Your task to perform on an android device: uninstall "Adobe Express: Graphic Design" Image 0: 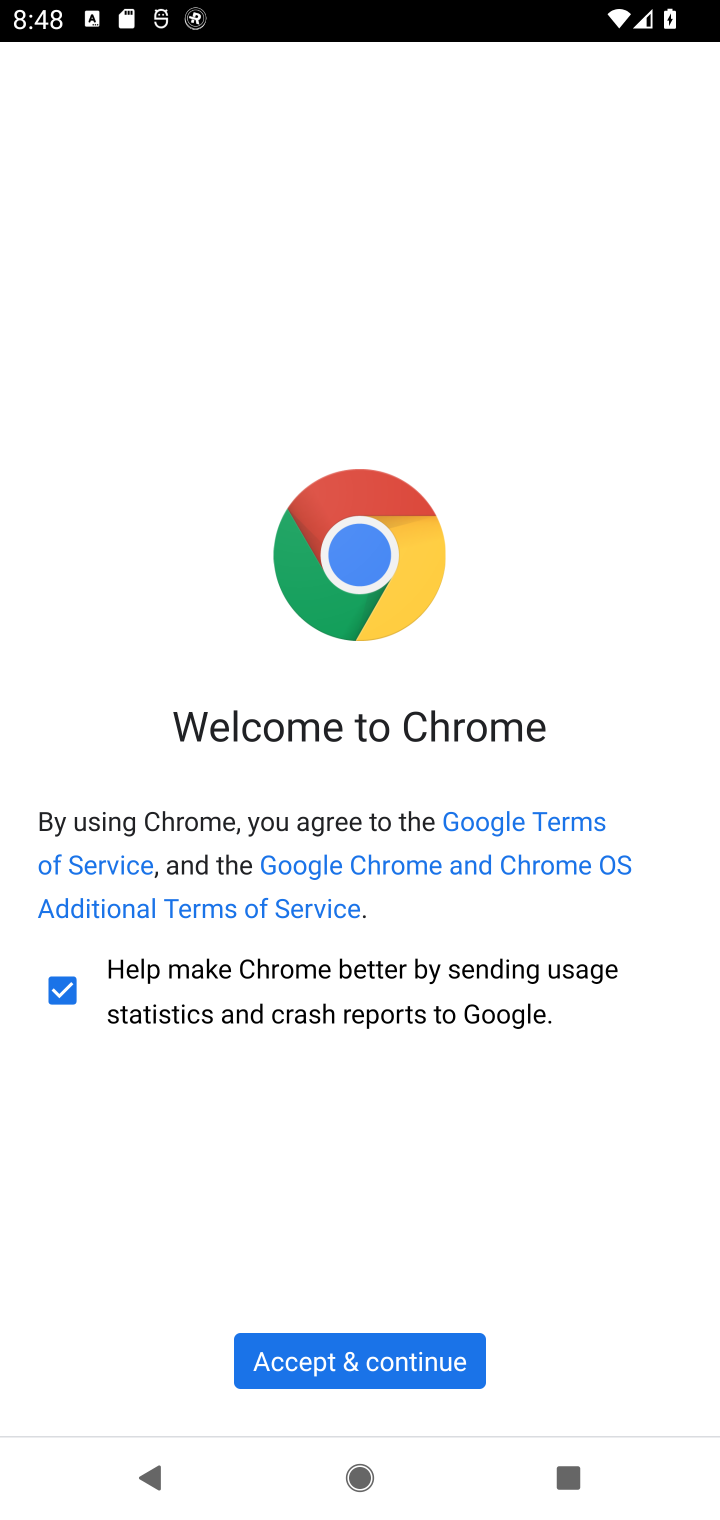
Step 0: press home button
Your task to perform on an android device: uninstall "Adobe Express: Graphic Design" Image 1: 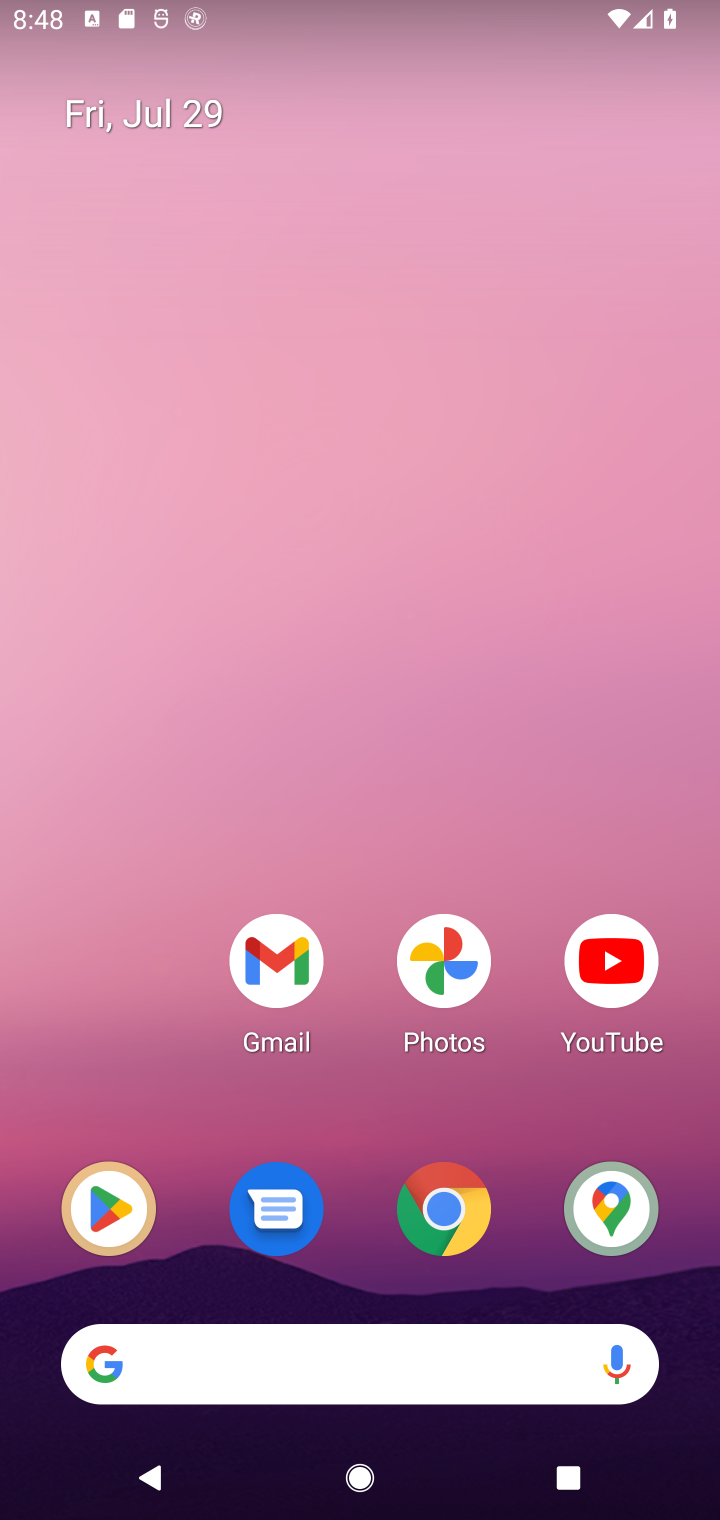
Step 1: click (97, 1213)
Your task to perform on an android device: uninstall "Adobe Express: Graphic Design" Image 2: 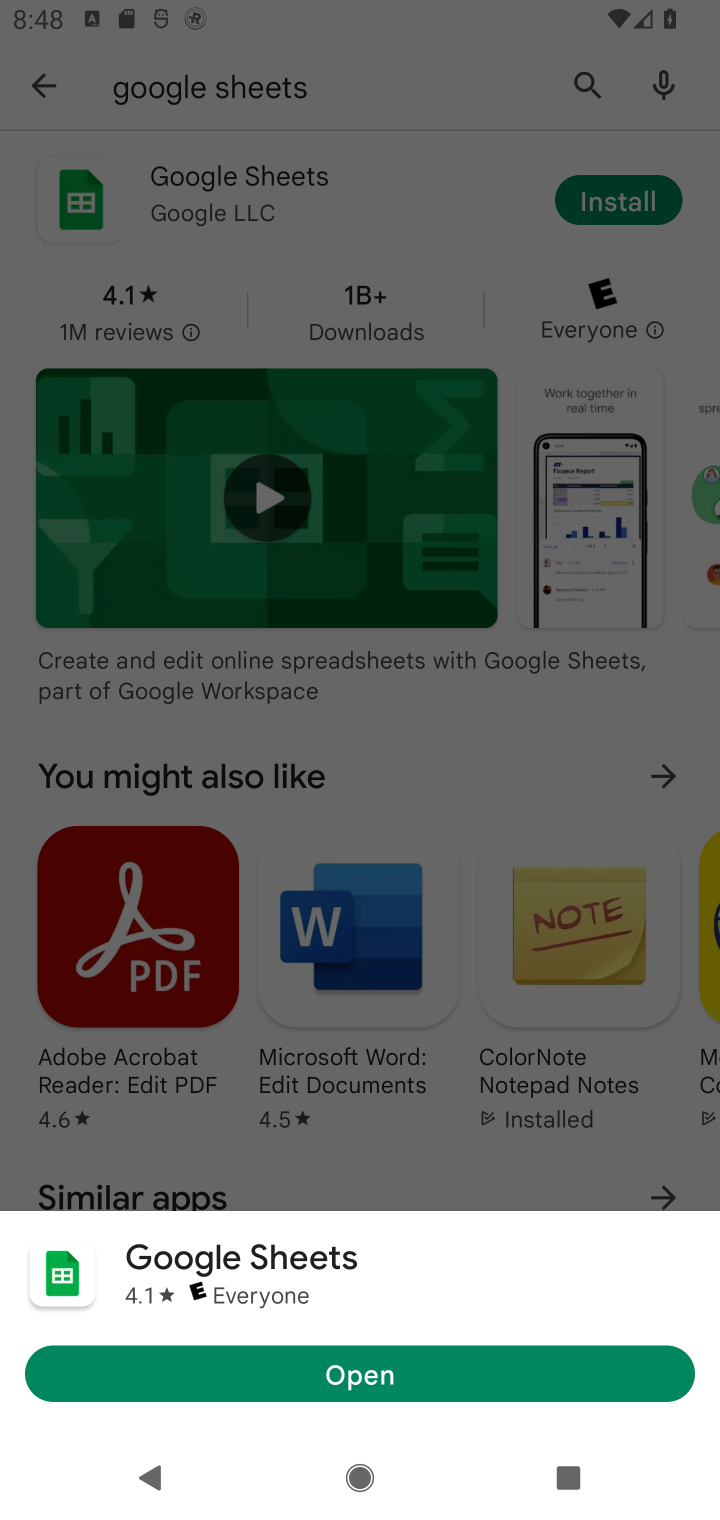
Step 2: click (576, 104)
Your task to perform on an android device: uninstall "Adobe Express: Graphic Design" Image 3: 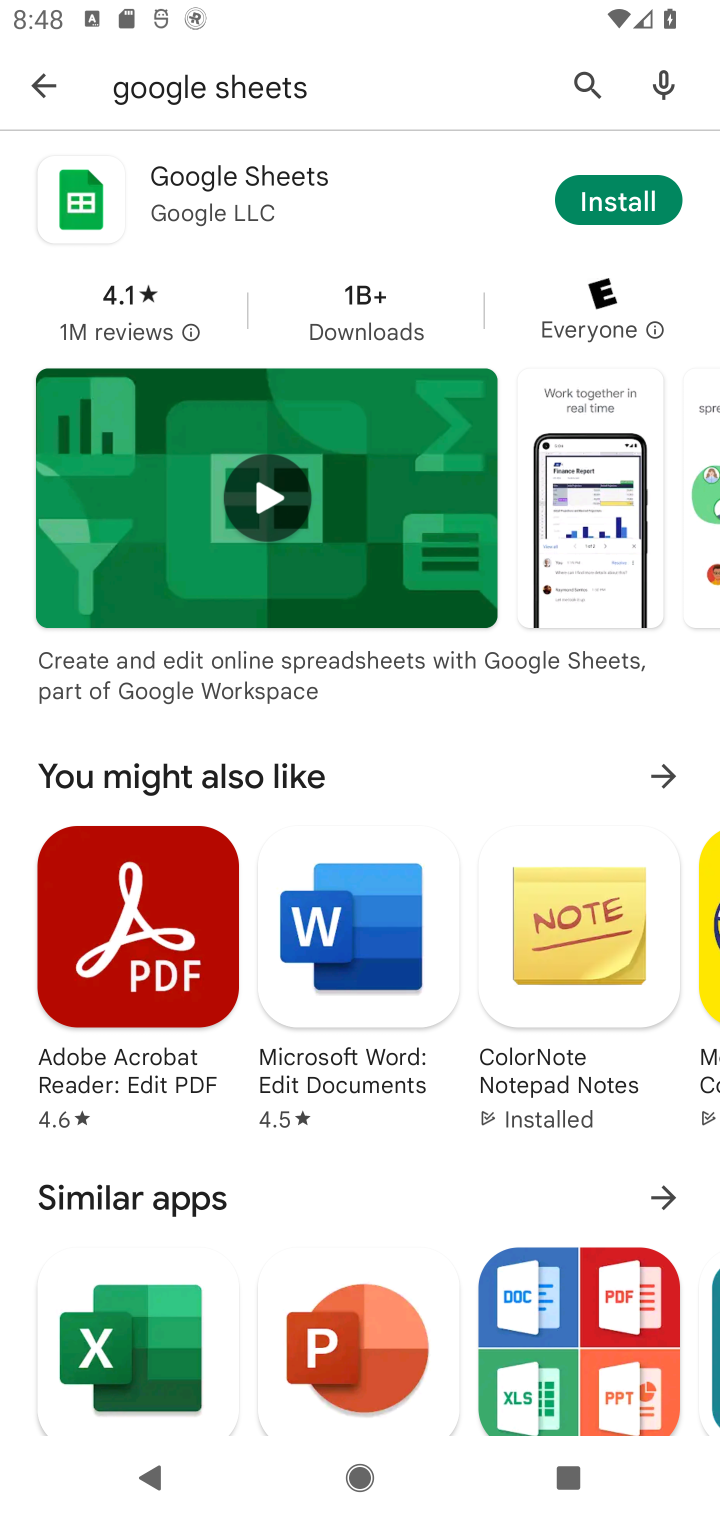
Step 3: click (578, 85)
Your task to perform on an android device: uninstall "Adobe Express: Graphic Design" Image 4: 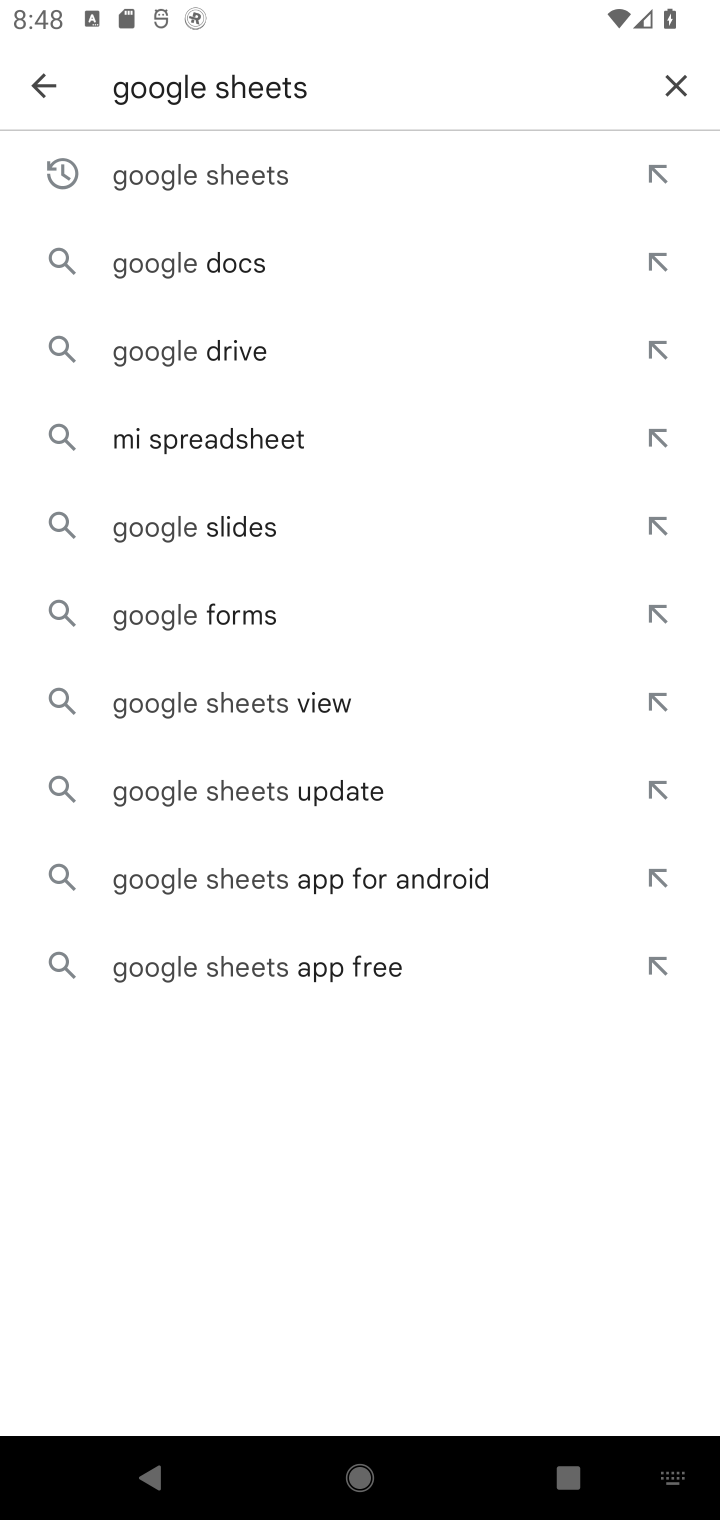
Step 4: click (667, 89)
Your task to perform on an android device: uninstall "Adobe Express: Graphic Design" Image 5: 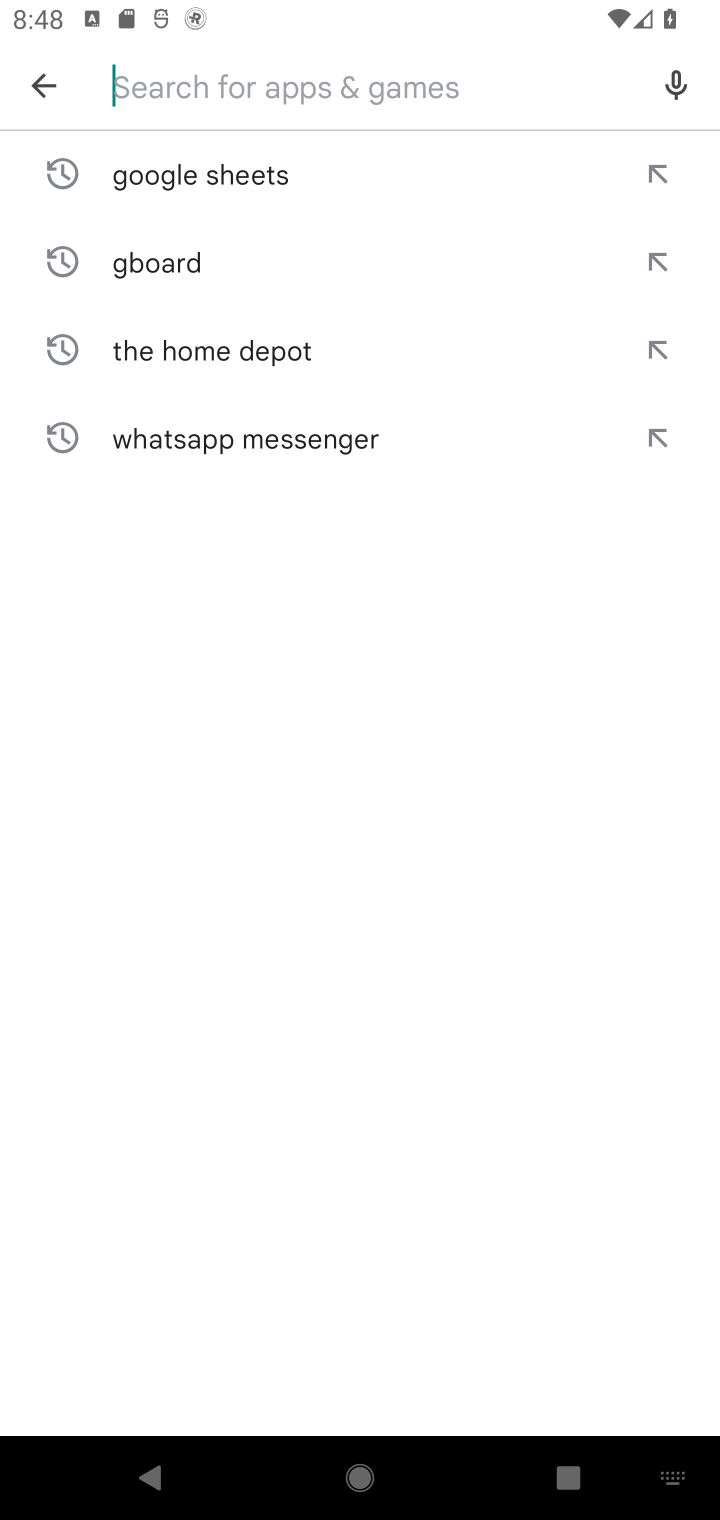
Step 5: type "Adobe Express: Graphic Design"
Your task to perform on an android device: uninstall "Adobe Express: Graphic Design" Image 6: 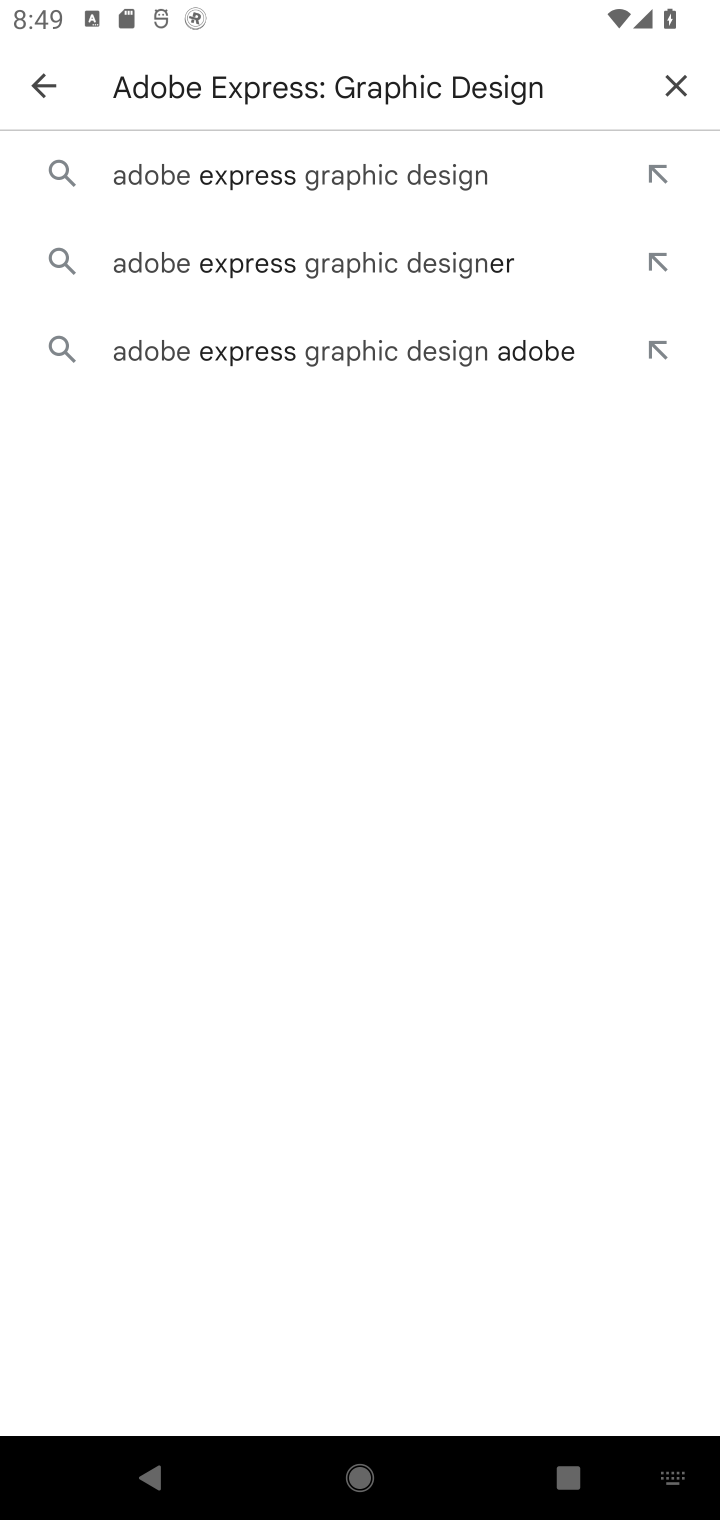
Step 6: click (226, 188)
Your task to perform on an android device: uninstall "Adobe Express: Graphic Design" Image 7: 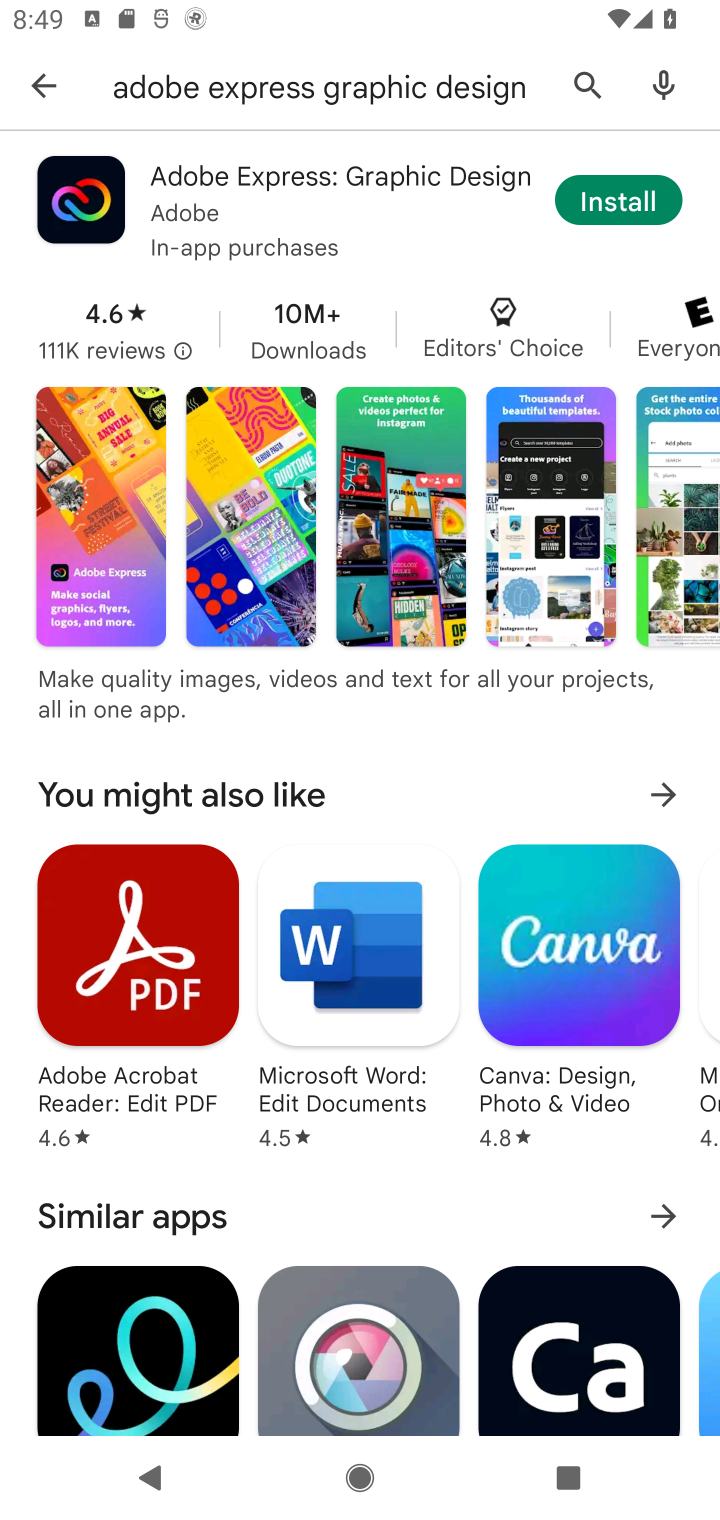
Step 7: task complete